Your task to perform on an android device: Open Google Chrome Image 0: 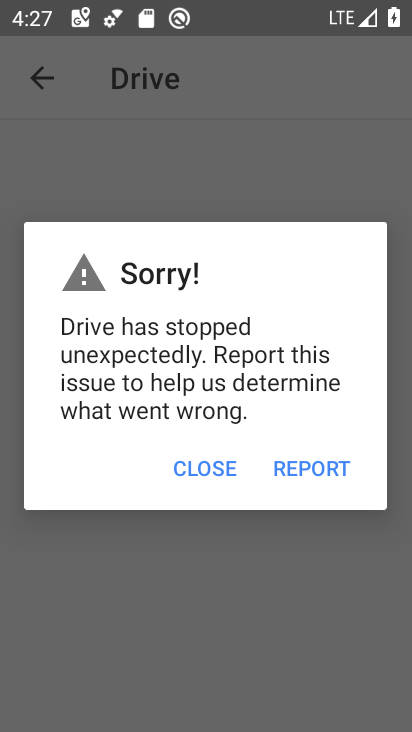
Step 0: press home button
Your task to perform on an android device: Open Google Chrome Image 1: 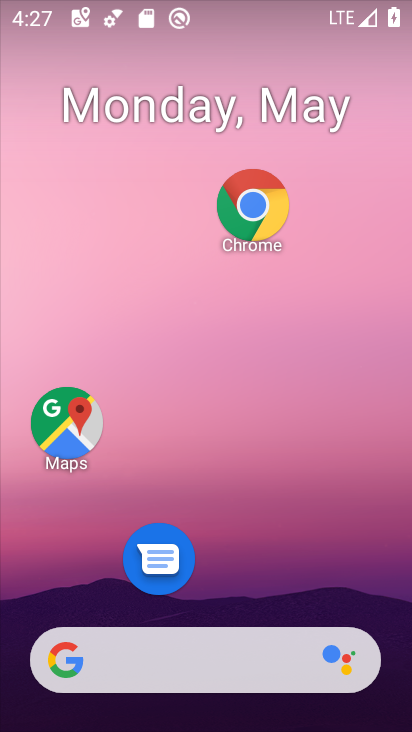
Step 1: click (255, 208)
Your task to perform on an android device: Open Google Chrome Image 2: 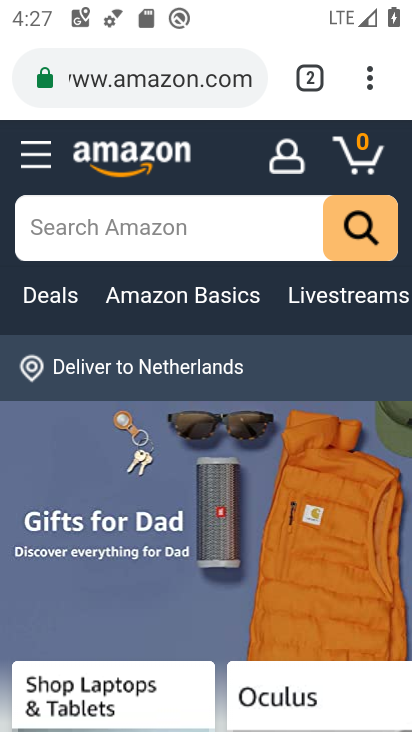
Step 2: click (373, 80)
Your task to perform on an android device: Open Google Chrome Image 3: 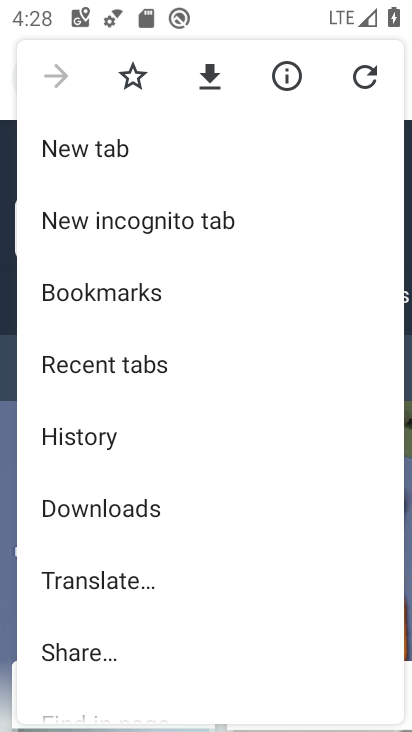
Step 3: task complete